Your task to perform on an android device: turn off location Image 0: 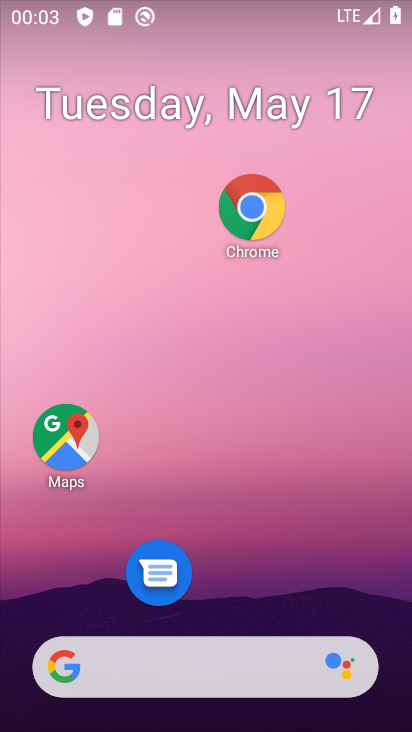
Step 0: drag from (277, 632) to (284, 81)
Your task to perform on an android device: turn off location Image 1: 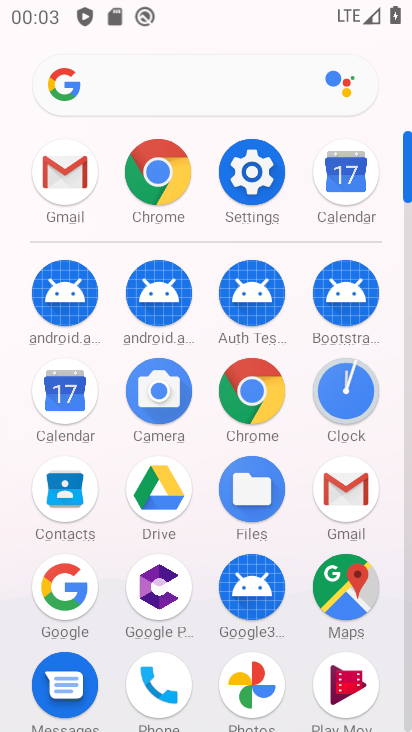
Step 1: click (257, 172)
Your task to perform on an android device: turn off location Image 2: 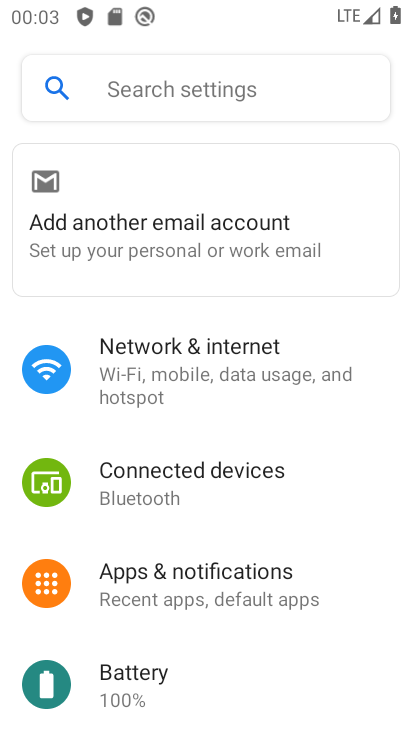
Step 2: drag from (195, 618) to (182, 70)
Your task to perform on an android device: turn off location Image 3: 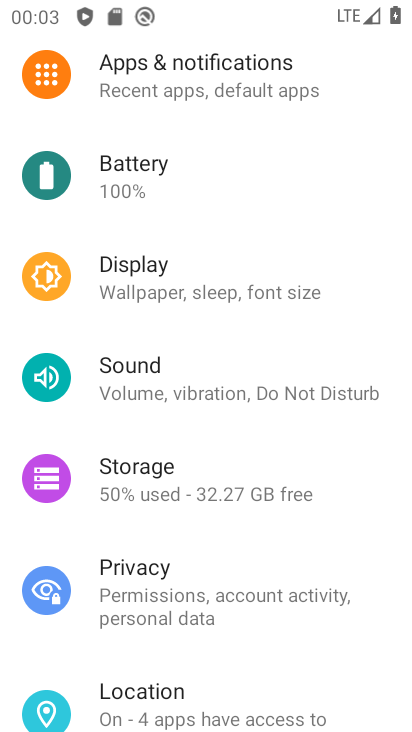
Step 3: click (162, 708)
Your task to perform on an android device: turn off location Image 4: 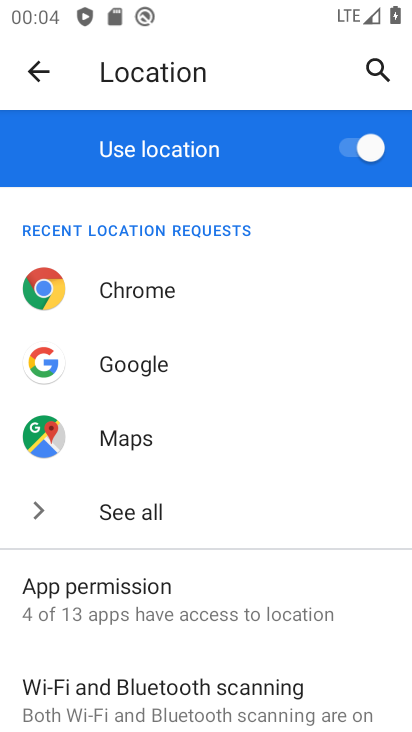
Step 4: drag from (195, 695) to (169, 223)
Your task to perform on an android device: turn off location Image 5: 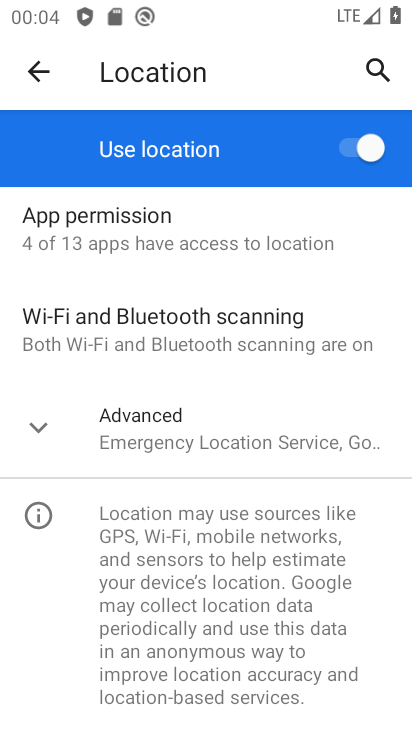
Step 5: drag from (196, 341) to (254, 697)
Your task to perform on an android device: turn off location Image 6: 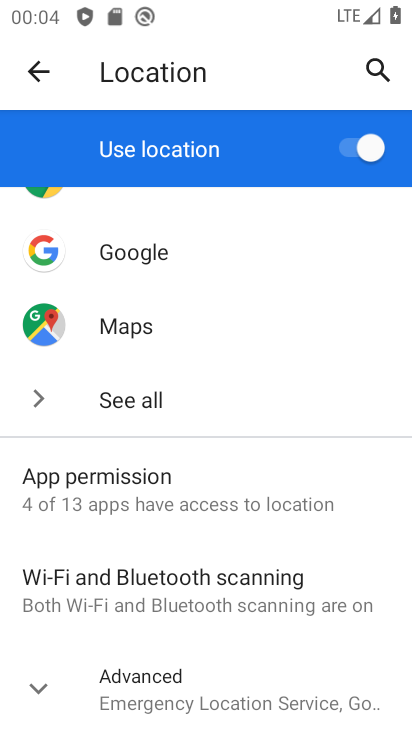
Step 6: click (353, 145)
Your task to perform on an android device: turn off location Image 7: 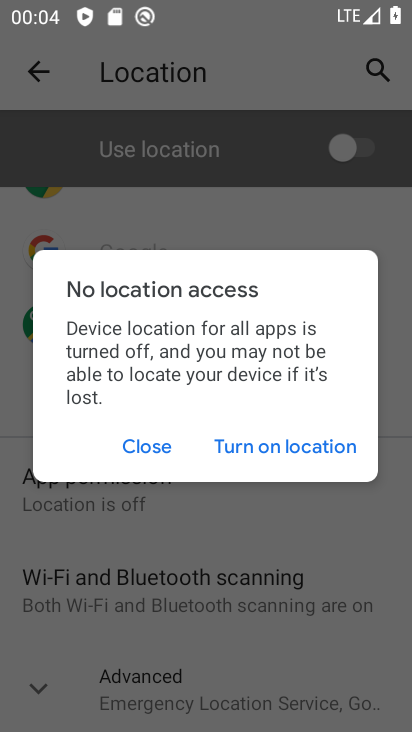
Step 7: click (161, 448)
Your task to perform on an android device: turn off location Image 8: 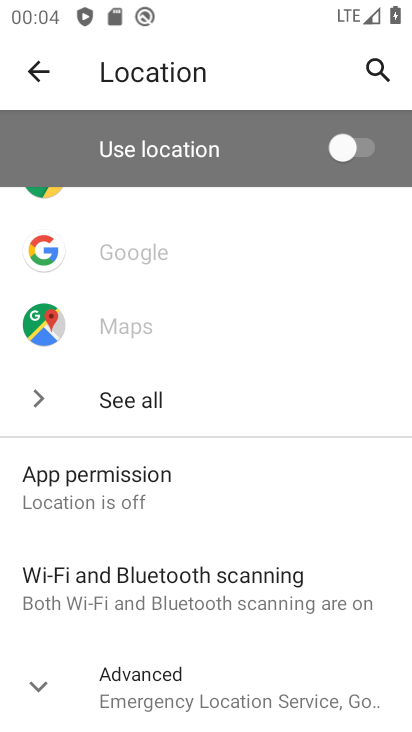
Step 8: task complete